Your task to perform on an android device: Open Yahoo.com Image 0: 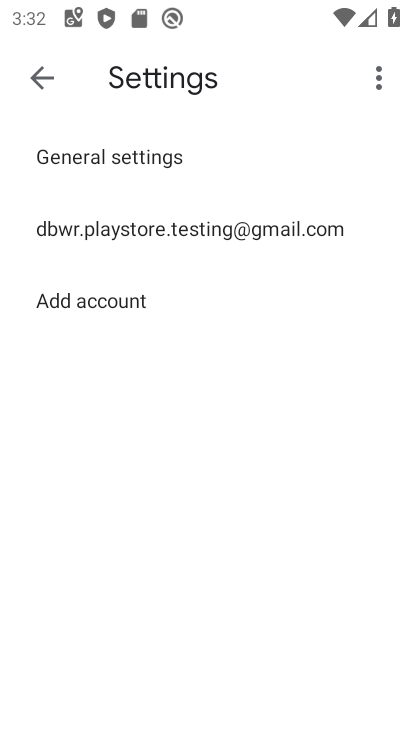
Step 0: press home button
Your task to perform on an android device: Open Yahoo.com Image 1: 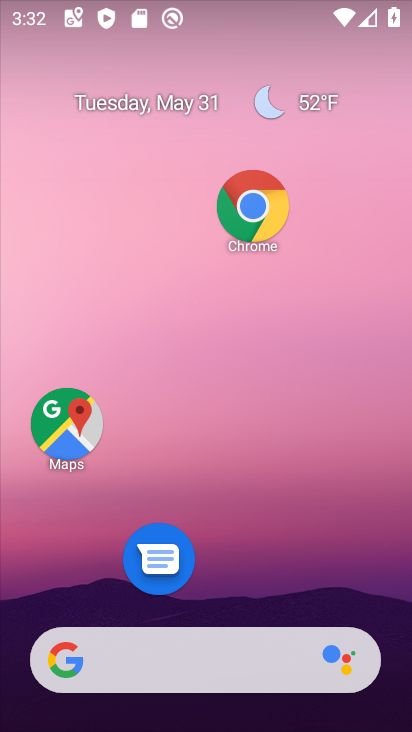
Step 1: click (239, 231)
Your task to perform on an android device: Open Yahoo.com Image 2: 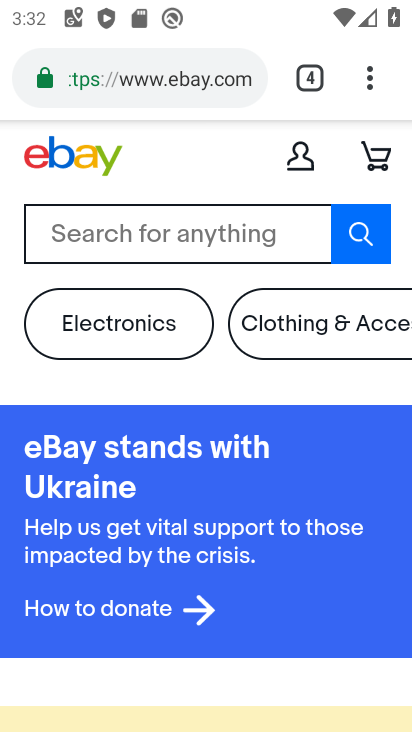
Step 2: click (295, 70)
Your task to perform on an android device: Open Yahoo.com Image 3: 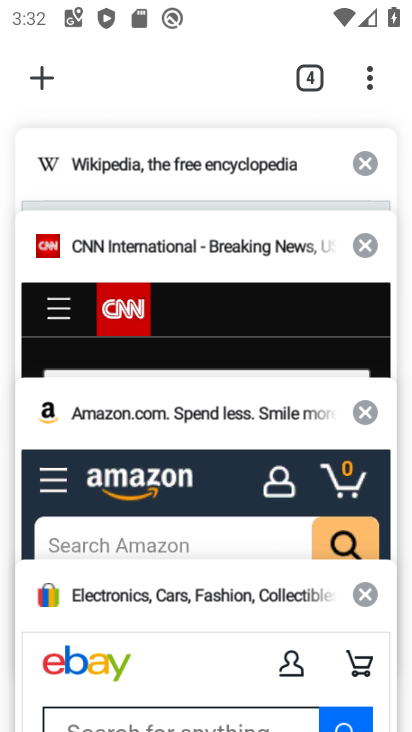
Step 3: click (37, 80)
Your task to perform on an android device: Open Yahoo.com Image 4: 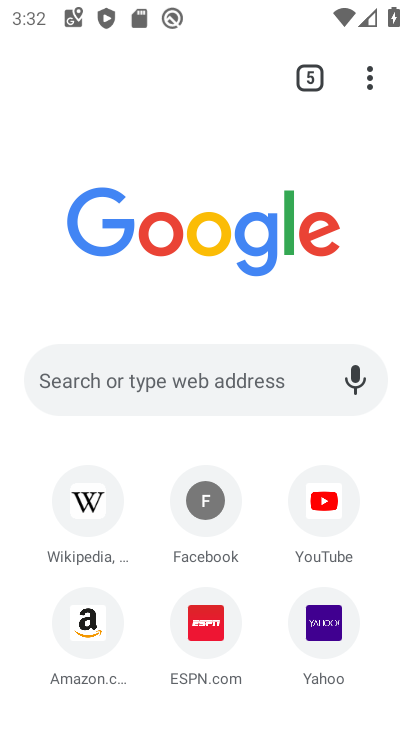
Step 4: click (310, 631)
Your task to perform on an android device: Open Yahoo.com Image 5: 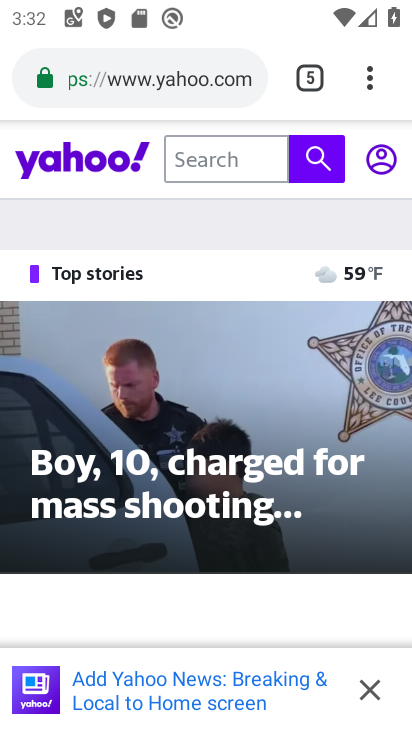
Step 5: task complete